Your task to perform on an android device: Open the stopwatch Image 0: 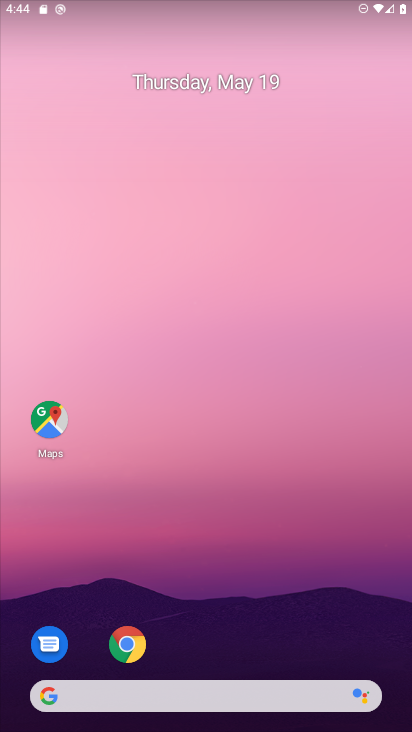
Step 0: press home button
Your task to perform on an android device: Open the stopwatch Image 1: 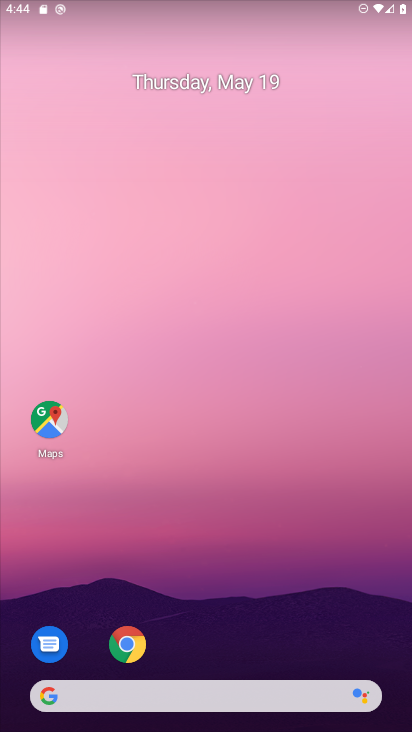
Step 1: drag from (203, 585) to (315, 39)
Your task to perform on an android device: Open the stopwatch Image 2: 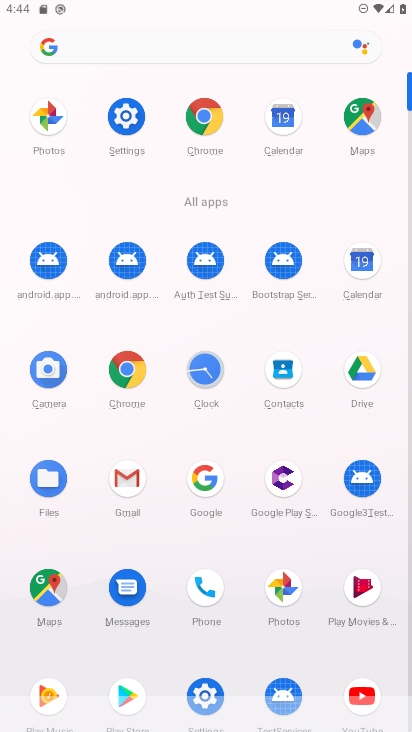
Step 2: click (215, 374)
Your task to perform on an android device: Open the stopwatch Image 3: 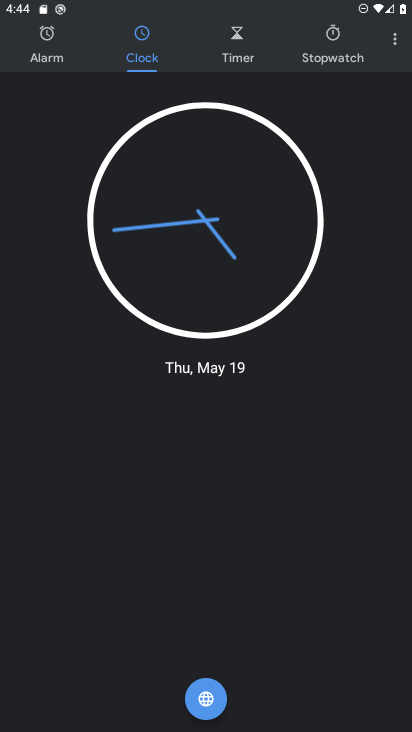
Step 3: click (325, 68)
Your task to perform on an android device: Open the stopwatch Image 4: 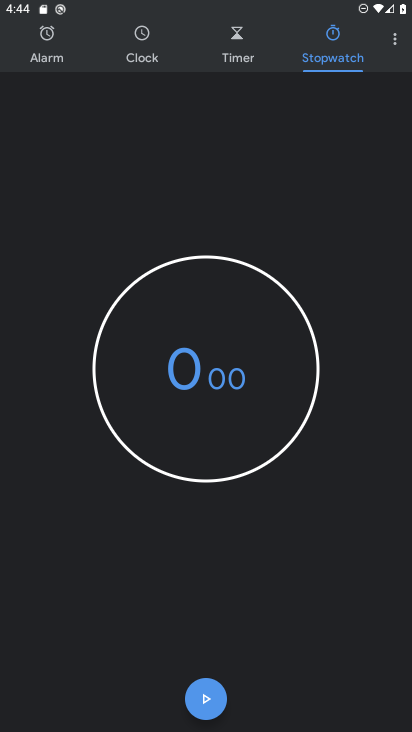
Step 4: task complete